Your task to perform on an android device: Open Google Chrome Image 0: 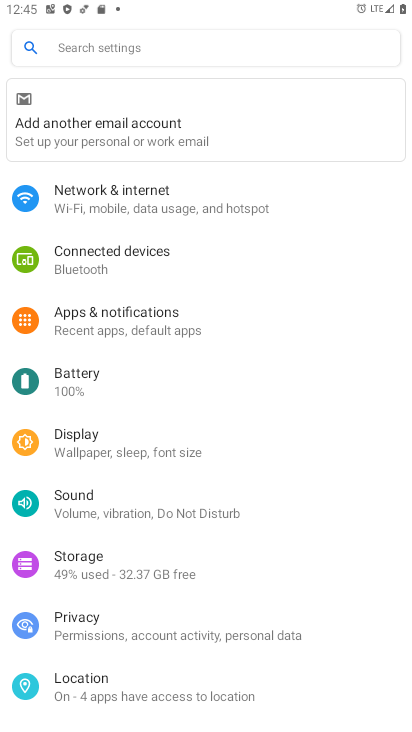
Step 0: press home button
Your task to perform on an android device: Open Google Chrome Image 1: 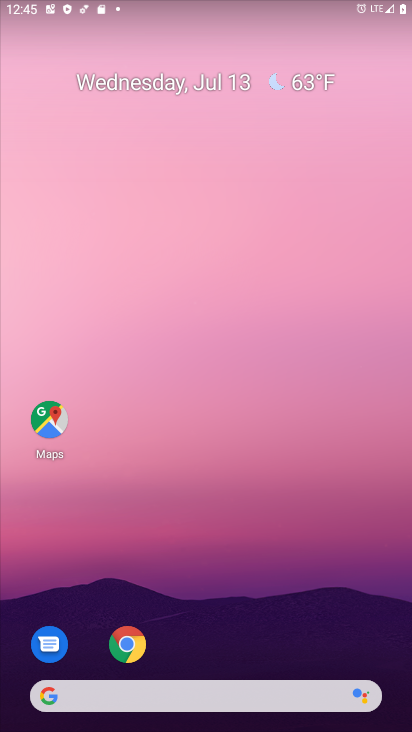
Step 1: click (128, 645)
Your task to perform on an android device: Open Google Chrome Image 2: 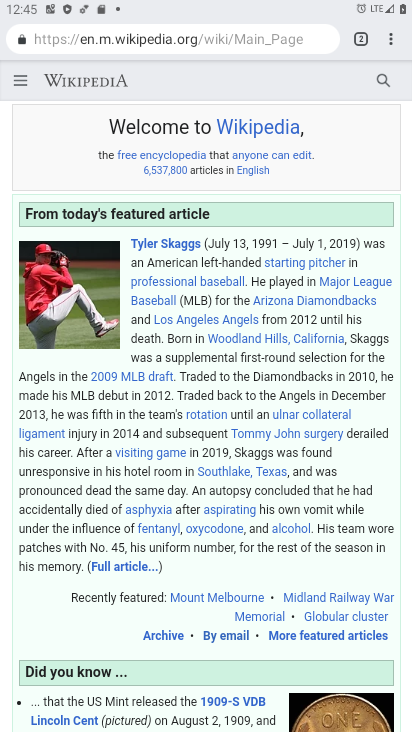
Step 2: task complete